Your task to perform on an android device: turn smart compose on in the gmail app Image 0: 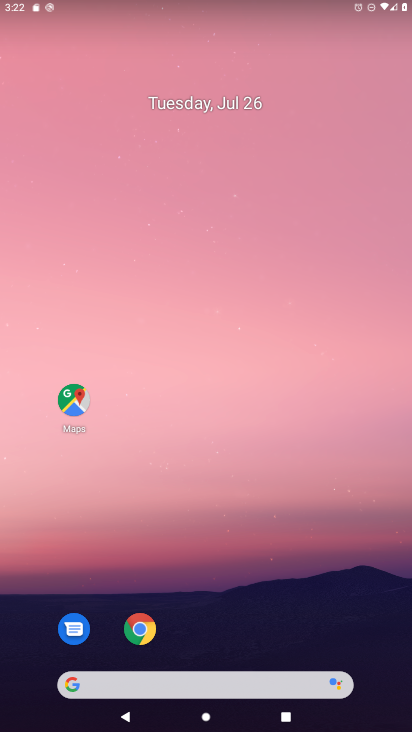
Step 0: drag from (205, 627) to (193, 260)
Your task to perform on an android device: turn smart compose on in the gmail app Image 1: 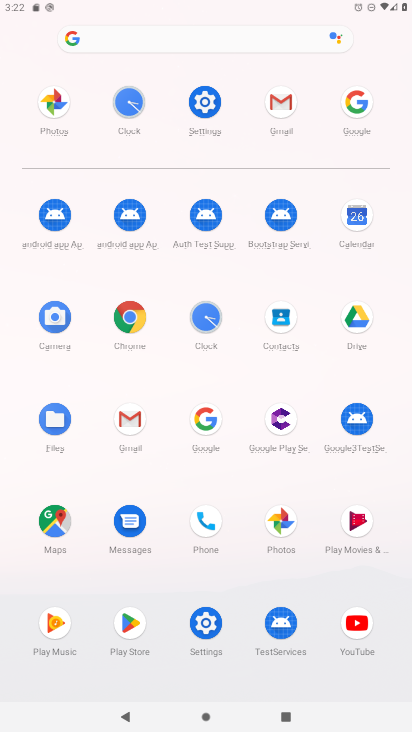
Step 1: click (279, 101)
Your task to perform on an android device: turn smart compose on in the gmail app Image 2: 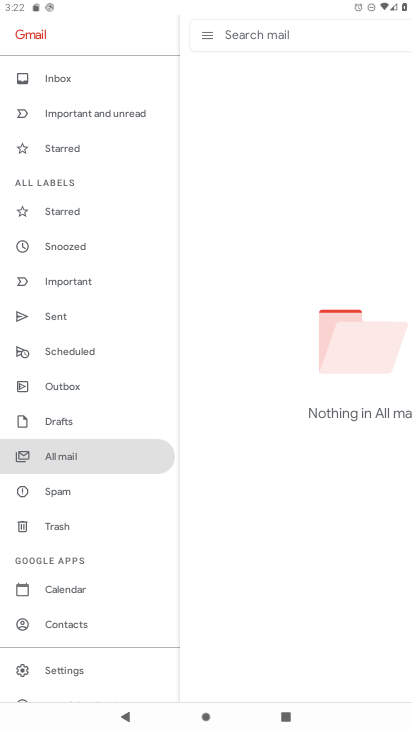
Step 2: click (82, 666)
Your task to perform on an android device: turn smart compose on in the gmail app Image 3: 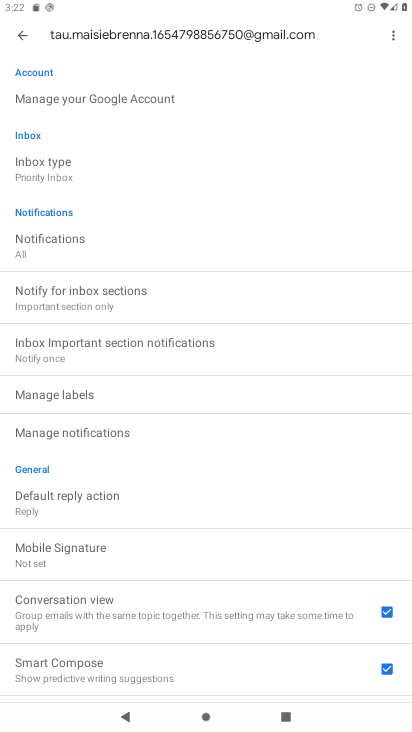
Step 3: task complete